Your task to perform on an android device: Go to Maps Image 0: 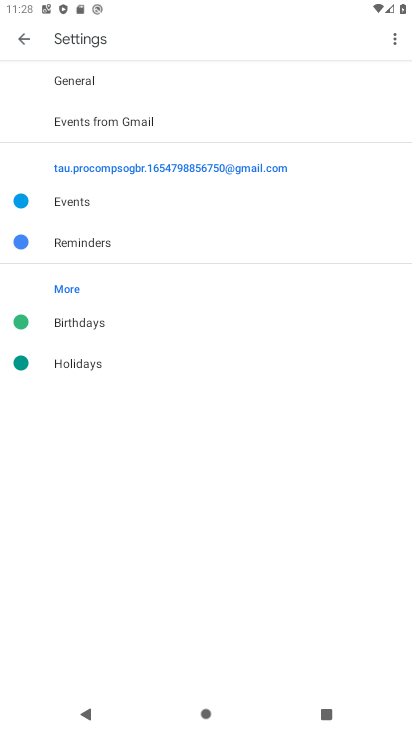
Step 0: press home button
Your task to perform on an android device: Go to Maps Image 1: 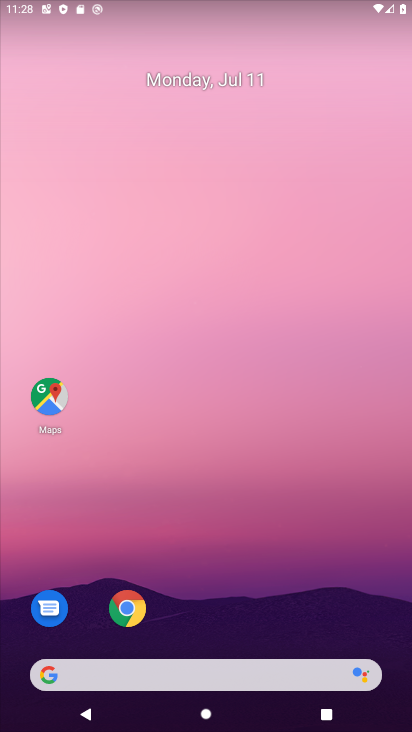
Step 1: click (38, 376)
Your task to perform on an android device: Go to Maps Image 2: 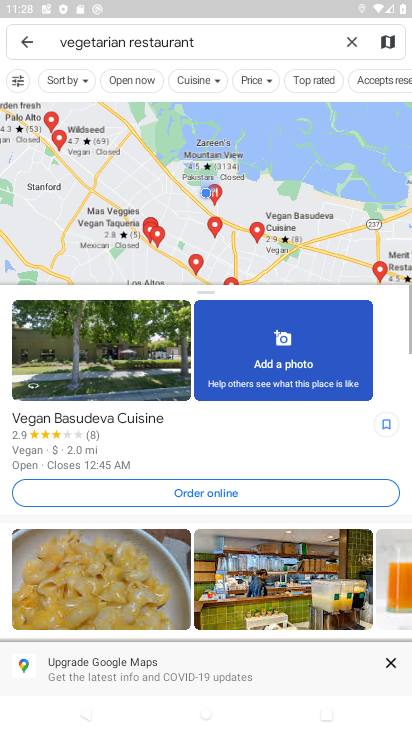
Step 2: task complete